Your task to perform on an android device: turn off priority inbox in the gmail app Image 0: 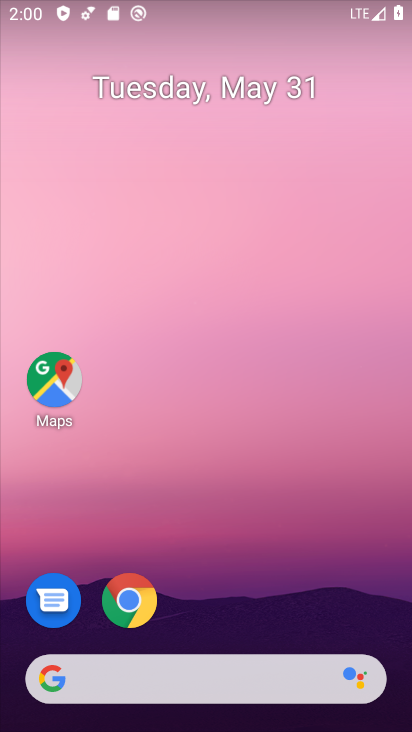
Step 0: drag from (211, 636) to (248, 90)
Your task to perform on an android device: turn off priority inbox in the gmail app Image 1: 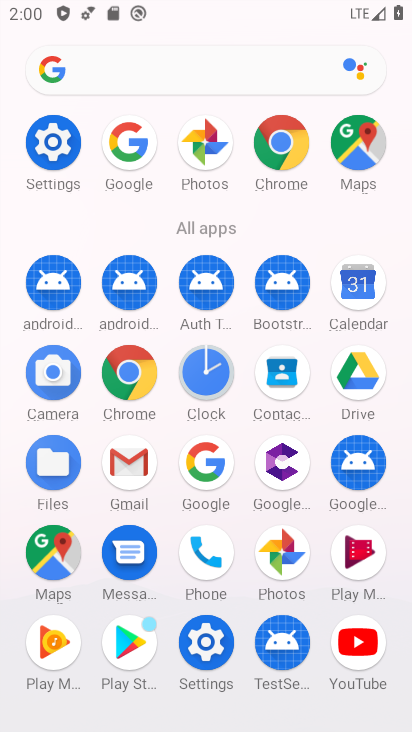
Step 1: click (122, 458)
Your task to perform on an android device: turn off priority inbox in the gmail app Image 2: 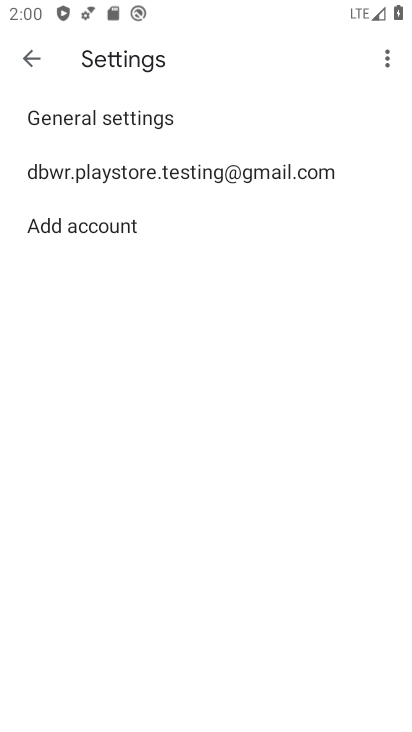
Step 2: click (37, 57)
Your task to perform on an android device: turn off priority inbox in the gmail app Image 3: 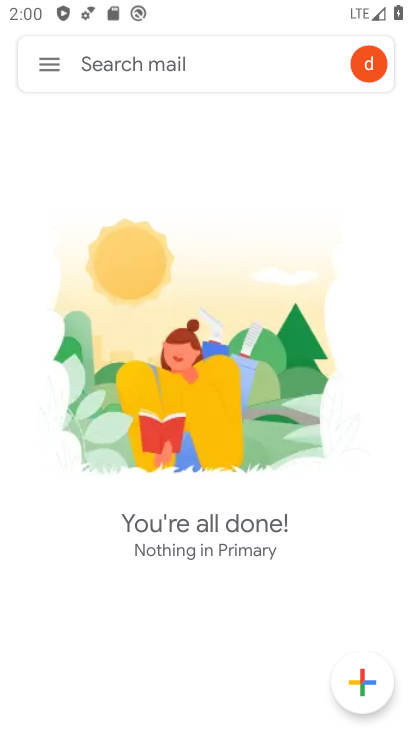
Step 3: click (48, 59)
Your task to perform on an android device: turn off priority inbox in the gmail app Image 4: 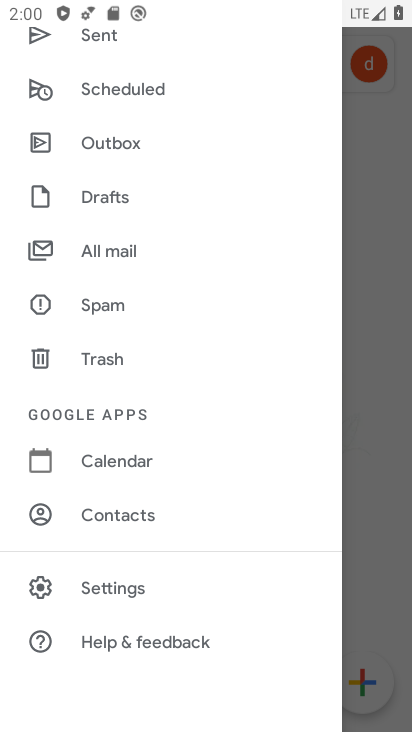
Step 4: click (146, 569)
Your task to perform on an android device: turn off priority inbox in the gmail app Image 5: 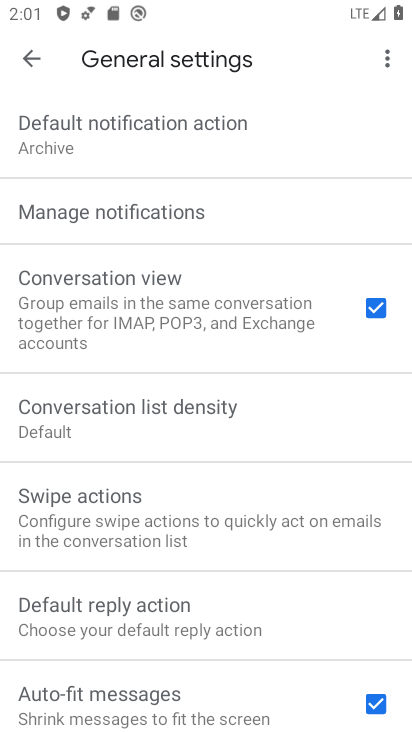
Step 5: click (33, 55)
Your task to perform on an android device: turn off priority inbox in the gmail app Image 6: 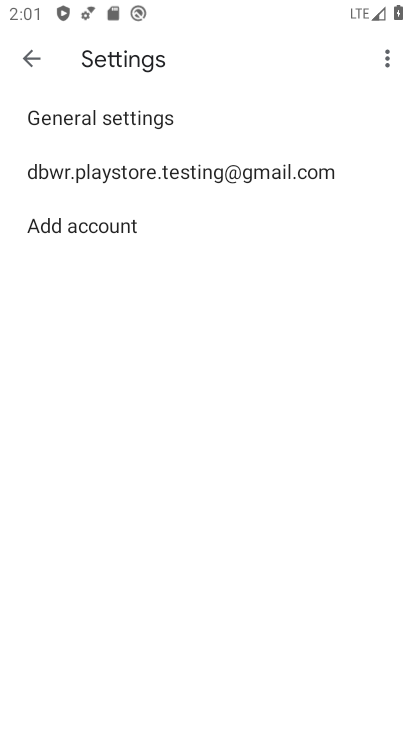
Step 6: click (241, 170)
Your task to perform on an android device: turn off priority inbox in the gmail app Image 7: 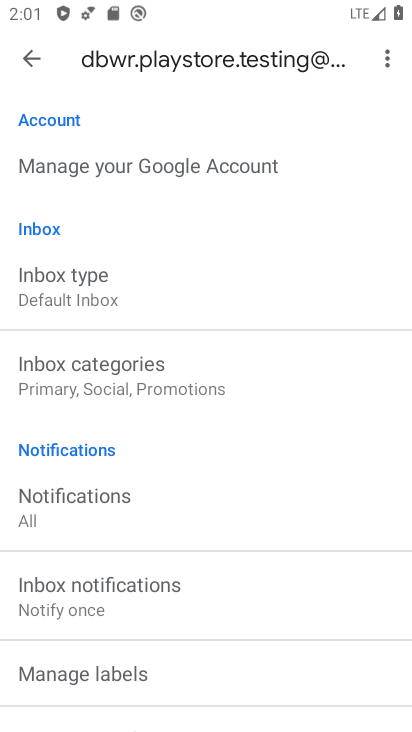
Step 7: click (134, 284)
Your task to perform on an android device: turn off priority inbox in the gmail app Image 8: 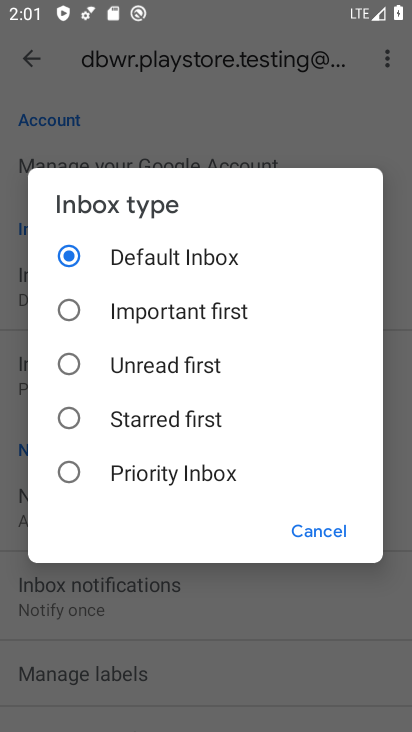
Step 8: click (66, 419)
Your task to perform on an android device: turn off priority inbox in the gmail app Image 9: 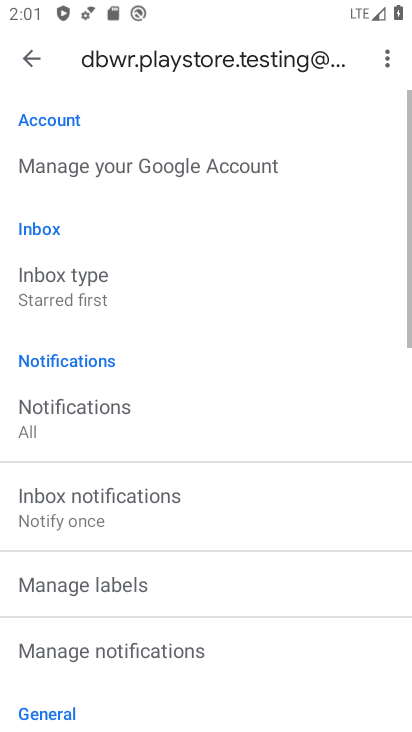
Step 9: task complete